Your task to perform on an android device: all mails in gmail Image 0: 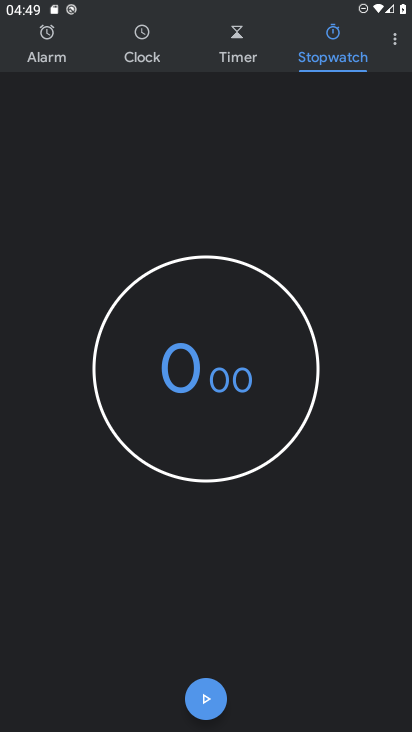
Step 0: press home button
Your task to perform on an android device: all mails in gmail Image 1: 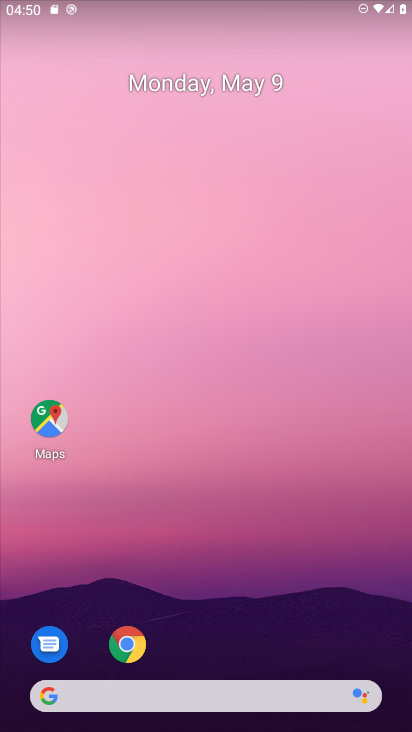
Step 1: drag from (232, 625) to (220, 153)
Your task to perform on an android device: all mails in gmail Image 2: 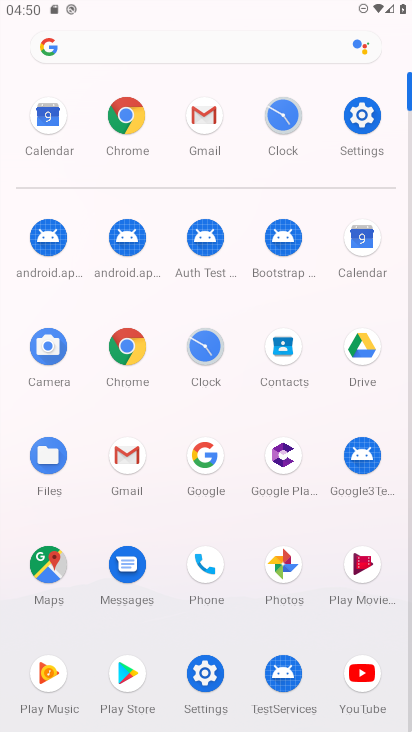
Step 2: click (205, 114)
Your task to perform on an android device: all mails in gmail Image 3: 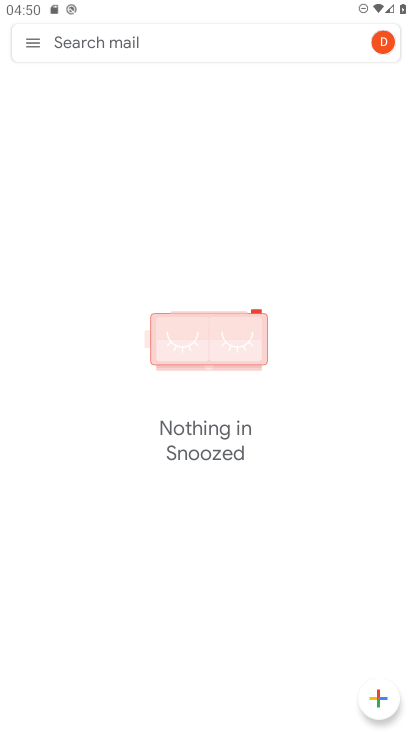
Step 3: click (30, 42)
Your task to perform on an android device: all mails in gmail Image 4: 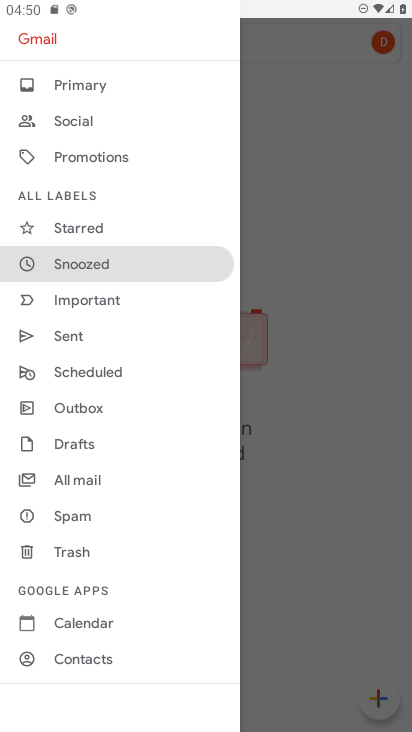
Step 4: click (79, 474)
Your task to perform on an android device: all mails in gmail Image 5: 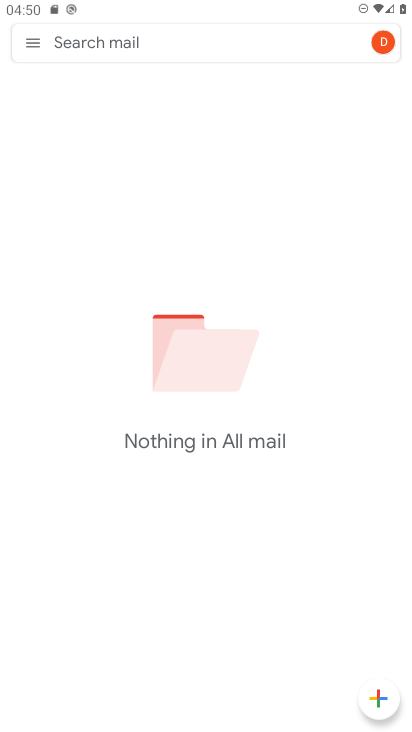
Step 5: task complete